Your task to perform on an android device: Check the weather Image 0: 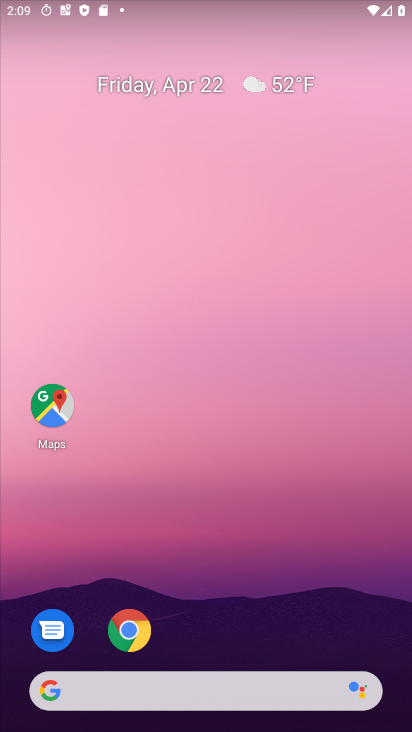
Step 0: click (278, 72)
Your task to perform on an android device: Check the weather Image 1: 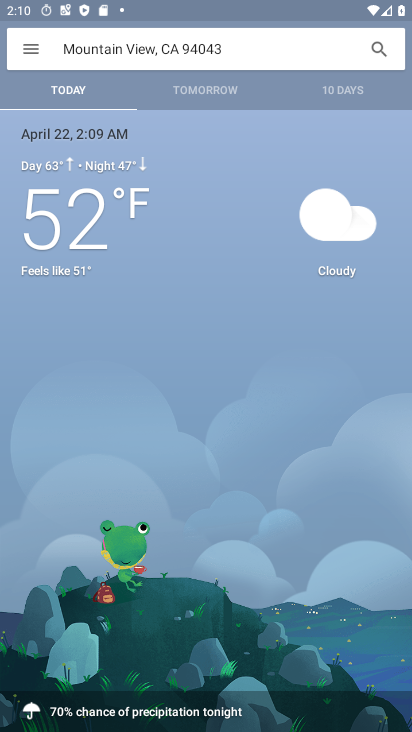
Step 1: task complete